Your task to perform on an android device: toggle priority inbox in the gmail app Image 0: 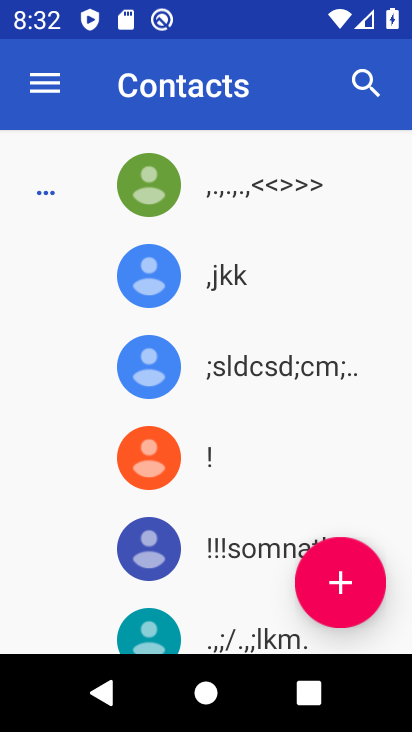
Step 0: press home button
Your task to perform on an android device: toggle priority inbox in the gmail app Image 1: 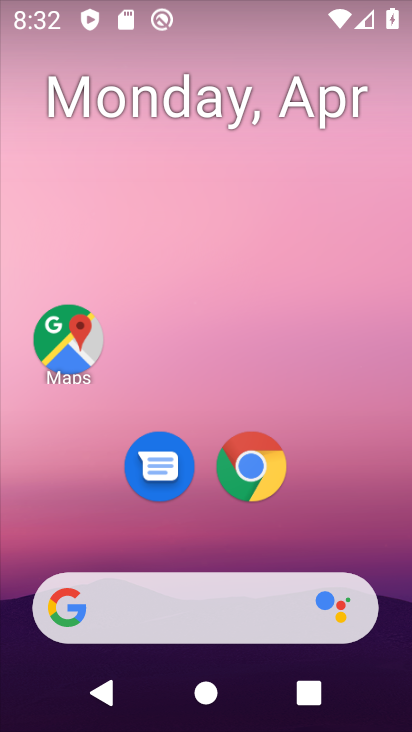
Step 1: drag from (235, 543) to (261, 12)
Your task to perform on an android device: toggle priority inbox in the gmail app Image 2: 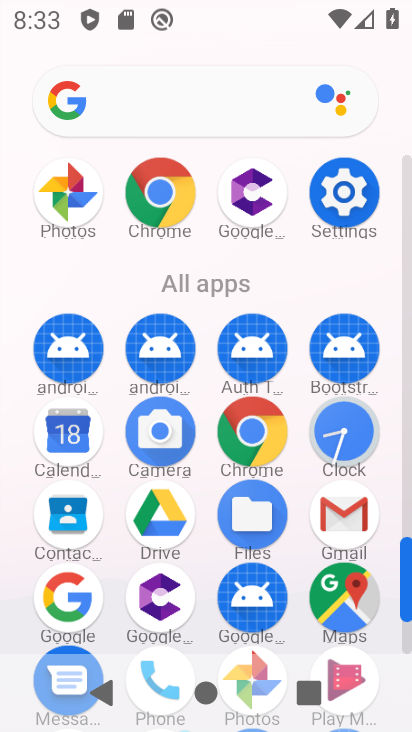
Step 2: click (345, 522)
Your task to perform on an android device: toggle priority inbox in the gmail app Image 3: 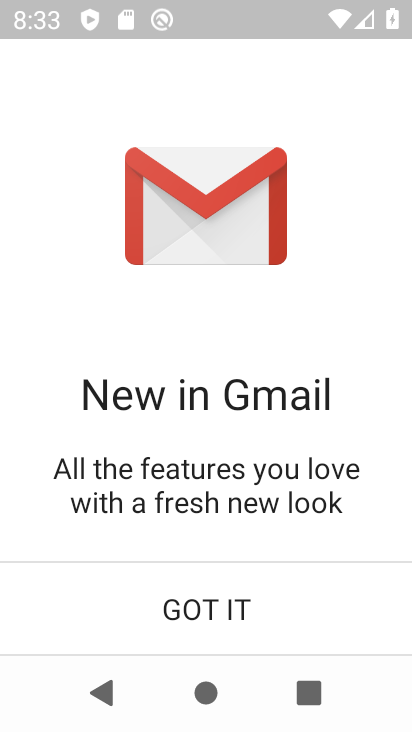
Step 3: click (204, 598)
Your task to perform on an android device: toggle priority inbox in the gmail app Image 4: 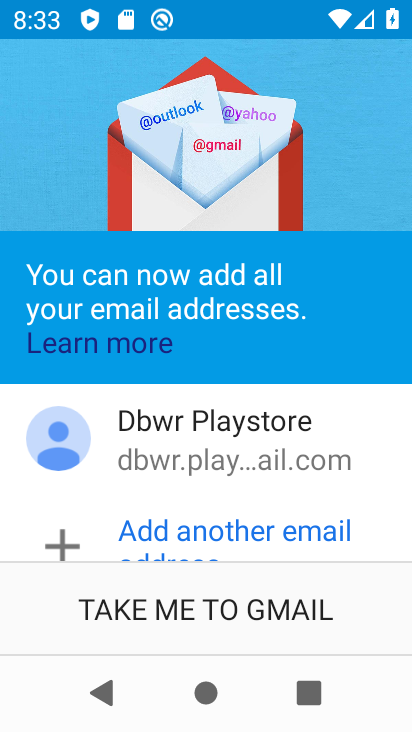
Step 4: click (202, 619)
Your task to perform on an android device: toggle priority inbox in the gmail app Image 5: 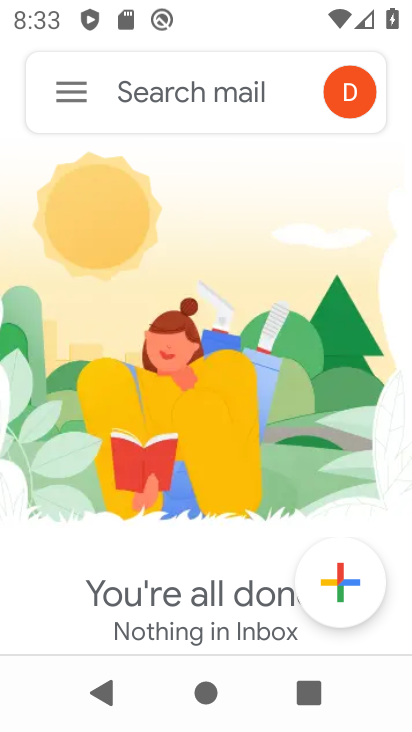
Step 5: click (66, 96)
Your task to perform on an android device: toggle priority inbox in the gmail app Image 6: 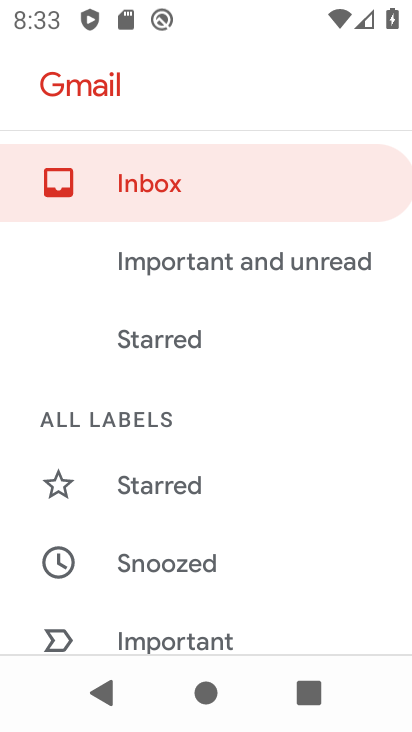
Step 6: drag from (231, 490) to (287, 358)
Your task to perform on an android device: toggle priority inbox in the gmail app Image 7: 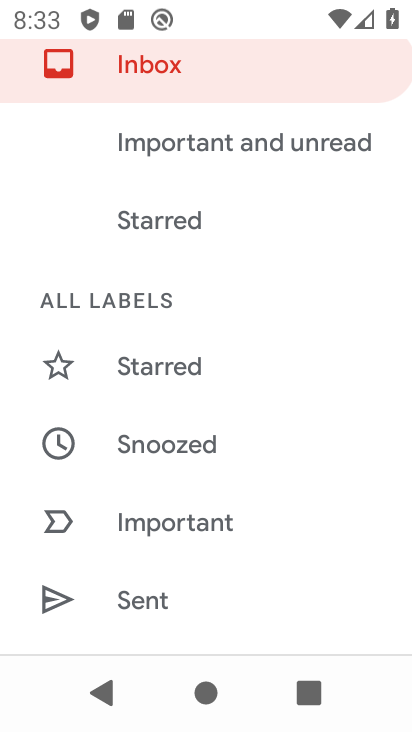
Step 7: drag from (232, 466) to (269, 349)
Your task to perform on an android device: toggle priority inbox in the gmail app Image 8: 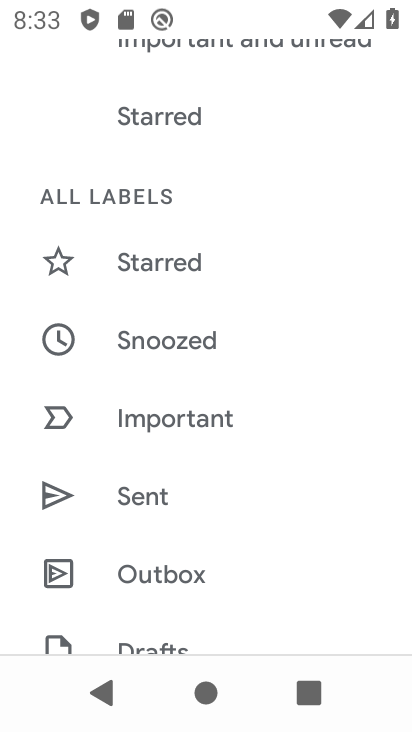
Step 8: drag from (237, 480) to (270, 338)
Your task to perform on an android device: toggle priority inbox in the gmail app Image 9: 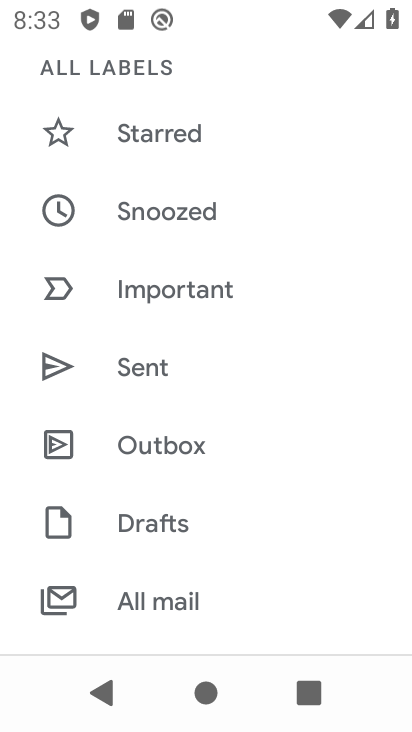
Step 9: drag from (245, 479) to (268, 374)
Your task to perform on an android device: toggle priority inbox in the gmail app Image 10: 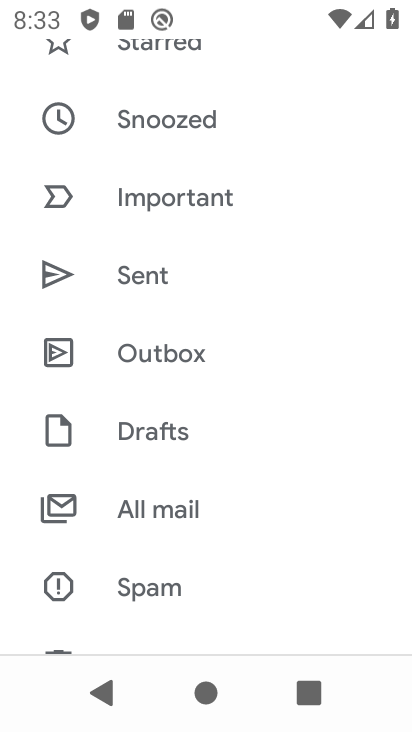
Step 10: drag from (223, 531) to (260, 396)
Your task to perform on an android device: toggle priority inbox in the gmail app Image 11: 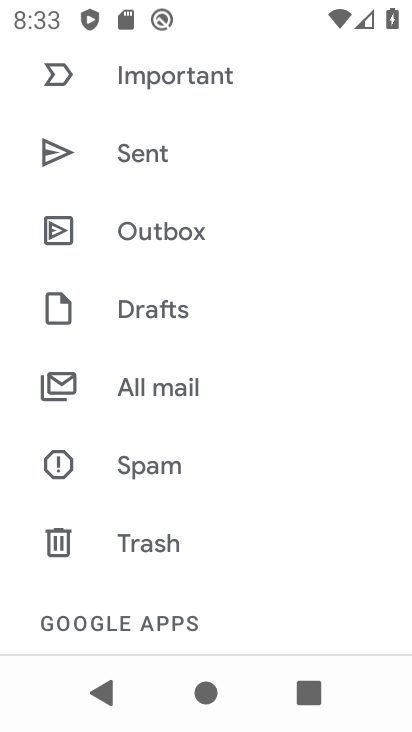
Step 11: drag from (223, 540) to (258, 359)
Your task to perform on an android device: toggle priority inbox in the gmail app Image 12: 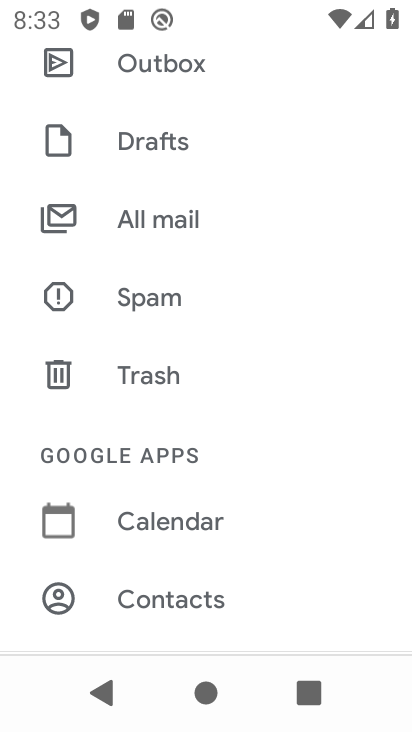
Step 12: drag from (237, 522) to (277, 404)
Your task to perform on an android device: toggle priority inbox in the gmail app Image 13: 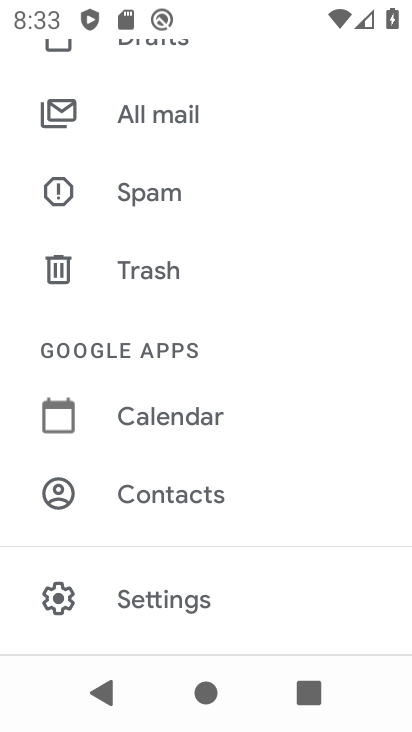
Step 13: click (189, 598)
Your task to perform on an android device: toggle priority inbox in the gmail app Image 14: 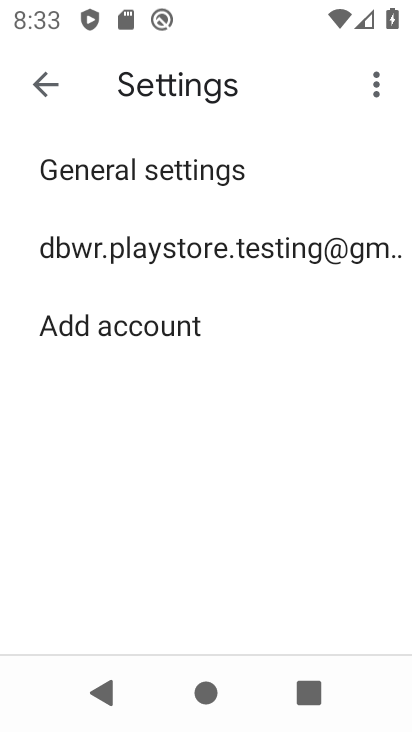
Step 14: click (180, 238)
Your task to perform on an android device: toggle priority inbox in the gmail app Image 15: 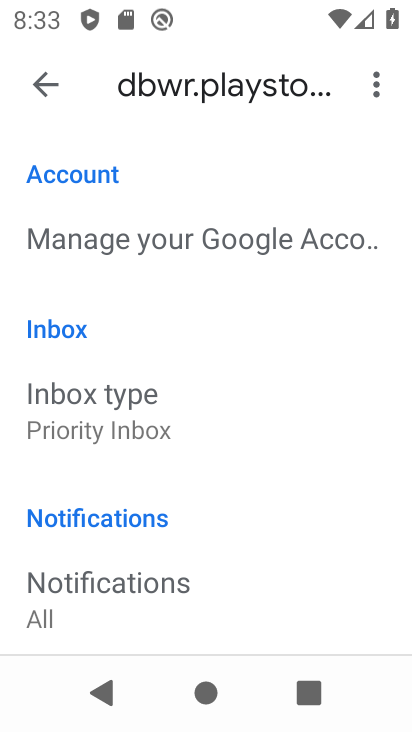
Step 15: click (119, 433)
Your task to perform on an android device: toggle priority inbox in the gmail app Image 16: 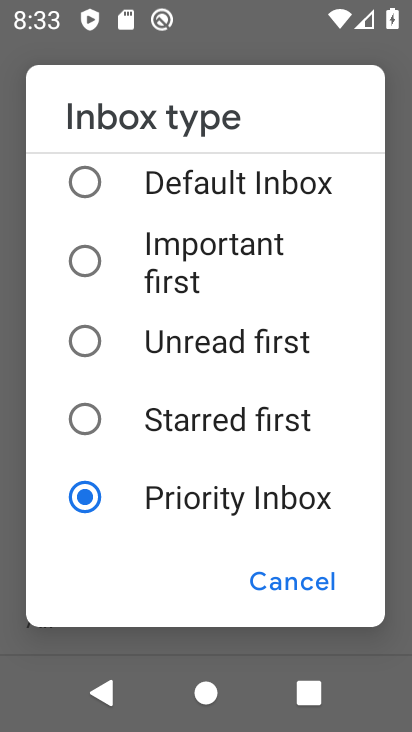
Step 16: click (96, 174)
Your task to perform on an android device: toggle priority inbox in the gmail app Image 17: 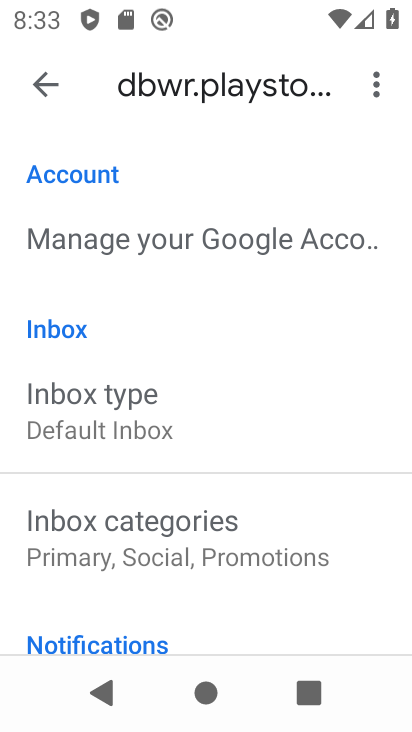
Step 17: task complete